Your task to perform on an android device: Open the phone app and click the voicemail tab. Image 0: 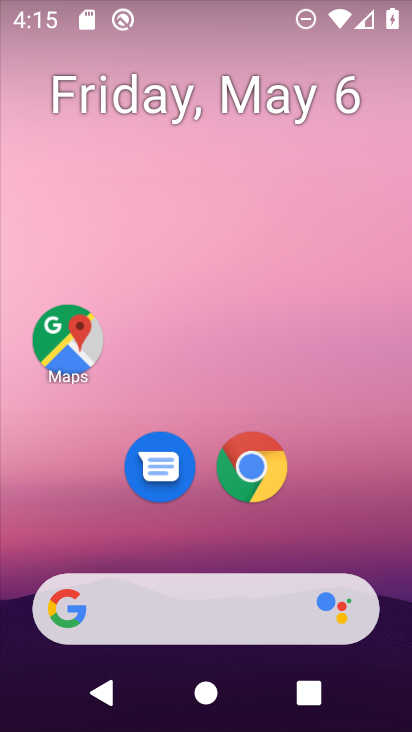
Step 0: drag from (320, 555) to (323, 119)
Your task to perform on an android device: Open the phone app and click the voicemail tab. Image 1: 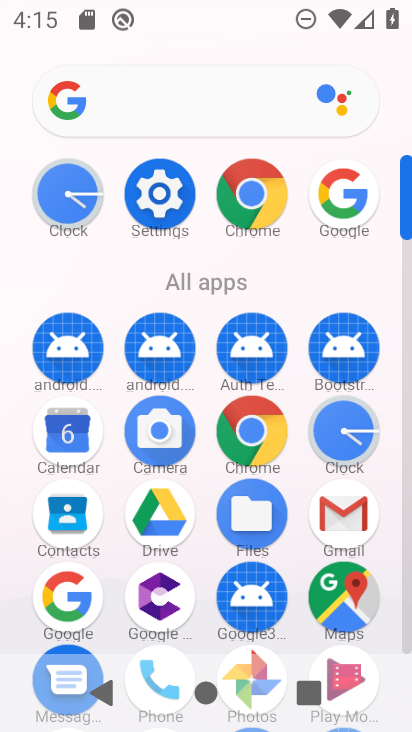
Step 1: drag from (181, 638) to (222, 321)
Your task to perform on an android device: Open the phone app and click the voicemail tab. Image 2: 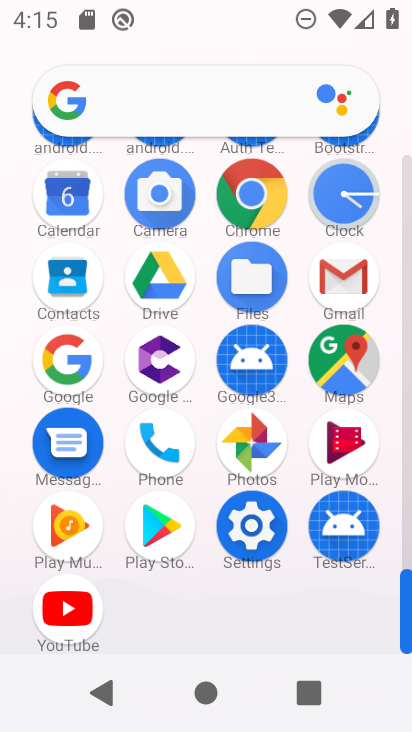
Step 2: click (177, 455)
Your task to perform on an android device: Open the phone app and click the voicemail tab. Image 3: 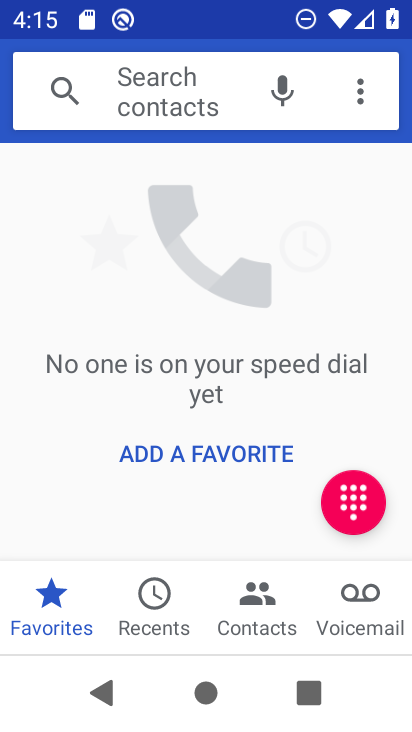
Step 3: click (356, 625)
Your task to perform on an android device: Open the phone app and click the voicemail tab. Image 4: 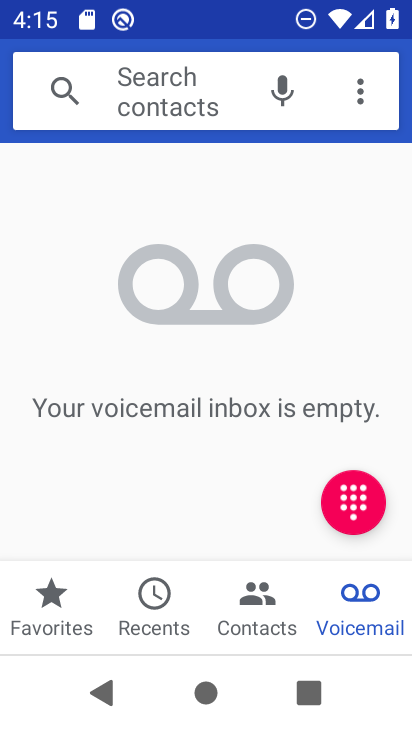
Step 4: task complete